Your task to perform on an android device: create a new album in the google photos Image 0: 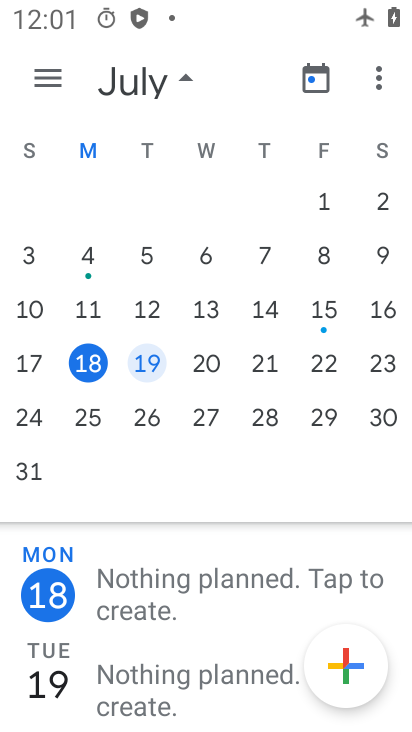
Step 0: press home button
Your task to perform on an android device: create a new album in the google photos Image 1: 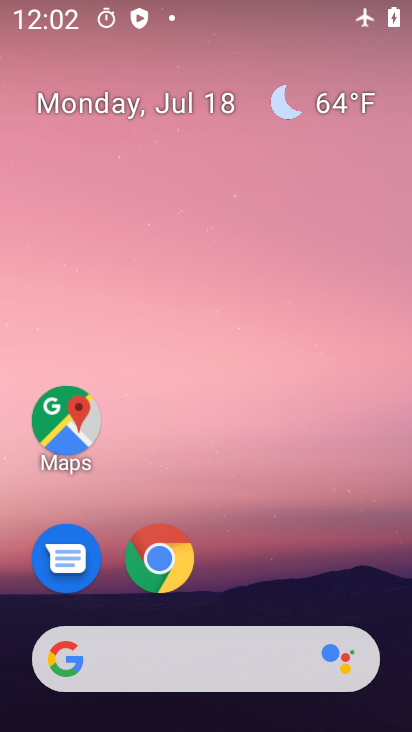
Step 1: drag from (317, 548) to (375, 190)
Your task to perform on an android device: create a new album in the google photos Image 2: 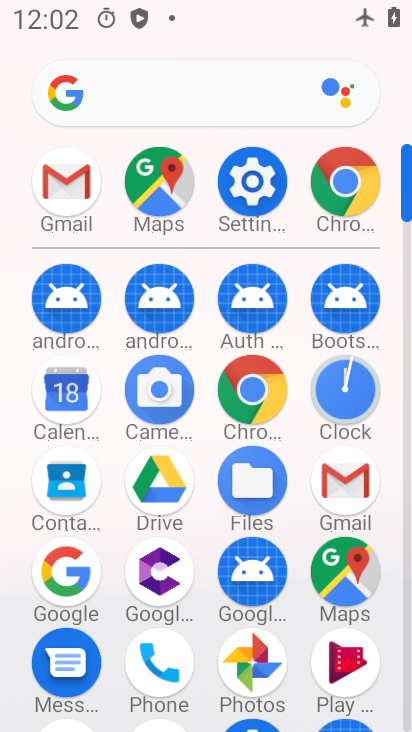
Step 2: drag from (398, 659) to (398, 454)
Your task to perform on an android device: create a new album in the google photos Image 3: 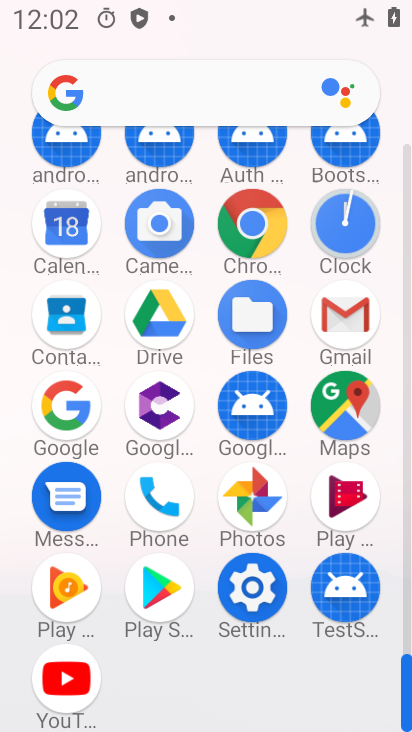
Step 3: click (261, 491)
Your task to perform on an android device: create a new album in the google photos Image 4: 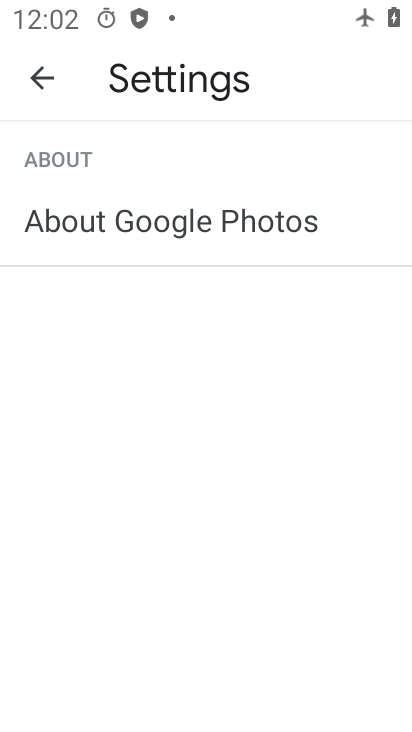
Step 4: press back button
Your task to perform on an android device: create a new album in the google photos Image 5: 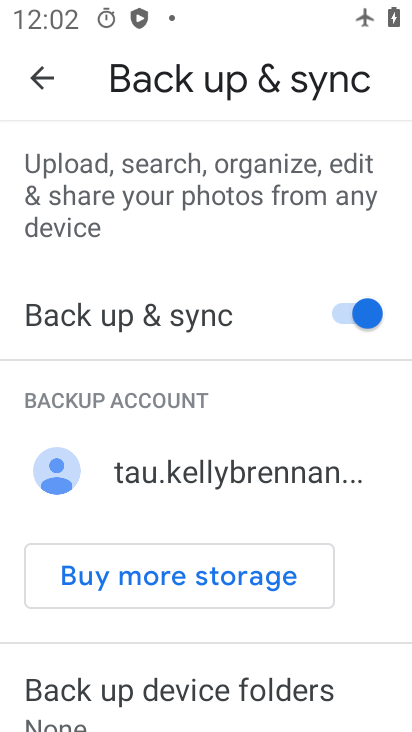
Step 5: press back button
Your task to perform on an android device: create a new album in the google photos Image 6: 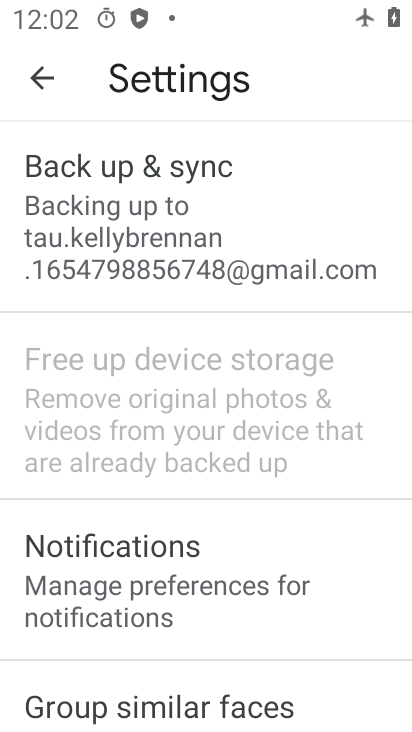
Step 6: press back button
Your task to perform on an android device: create a new album in the google photos Image 7: 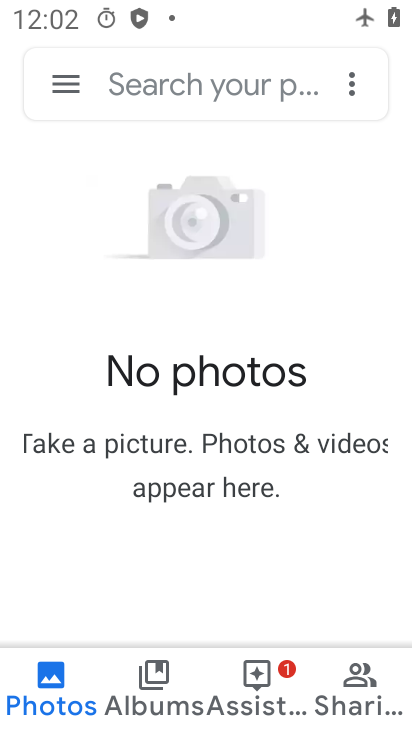
Step 7: click (351, 89)
Your task to perform on an android device: create a new album in the google photos Image 8: 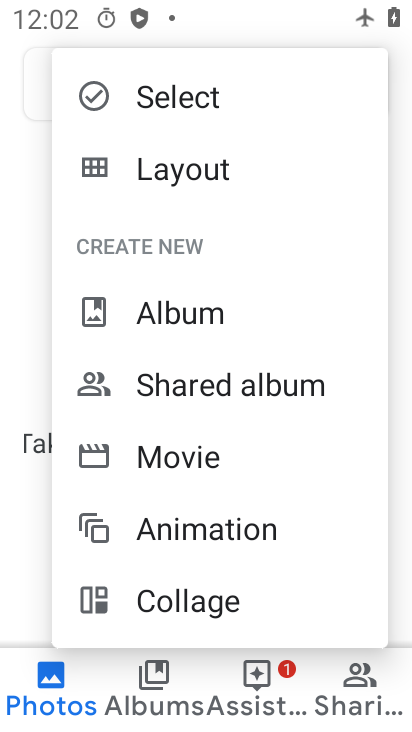
Step 8: click (218, 325)
Your task to perform on an android device: create a new album in the google photos Image 9: 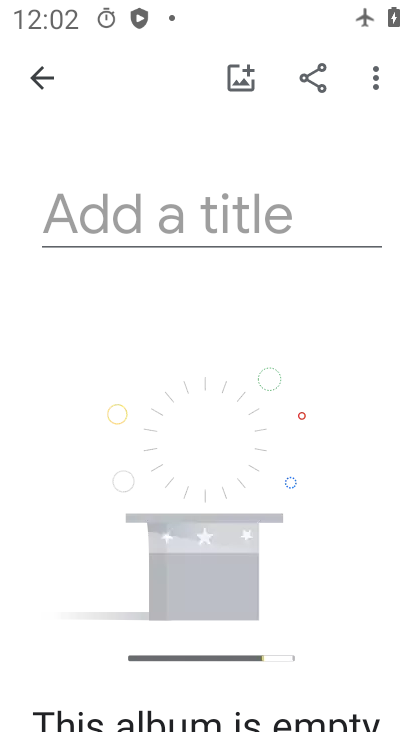
Step 9: click (212, 215)
Your task to perform on an android device: create a new album in the google photos Image 10: 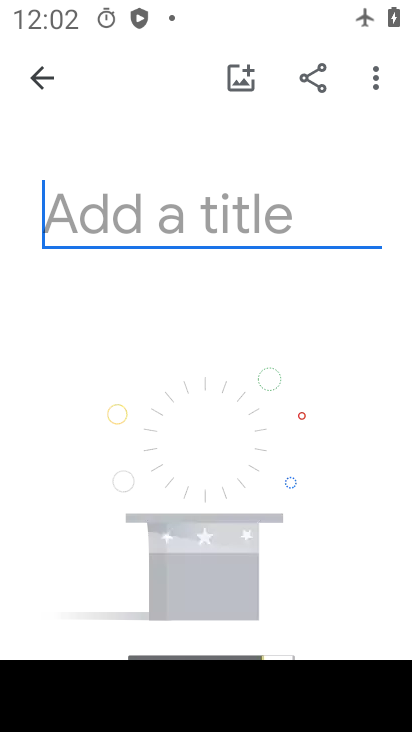
Step 10: type "fav"
Your task to perform on an android device: create a new album in the google photos Image 11: 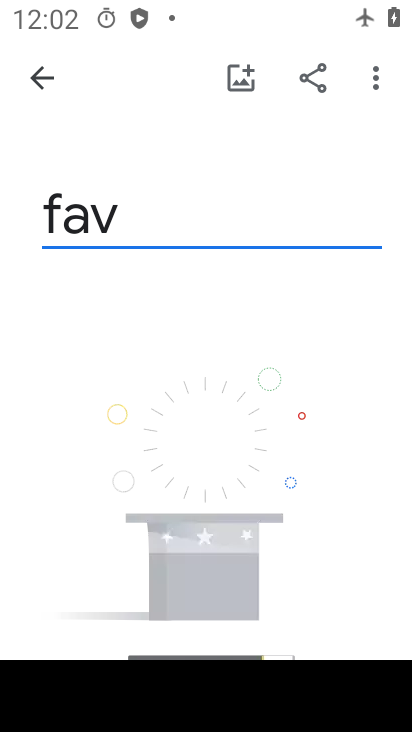
Step 11: drag from (306, 572) to (317, 401)
Your task to perform on an android device: create a new album in the google photos Image 12: 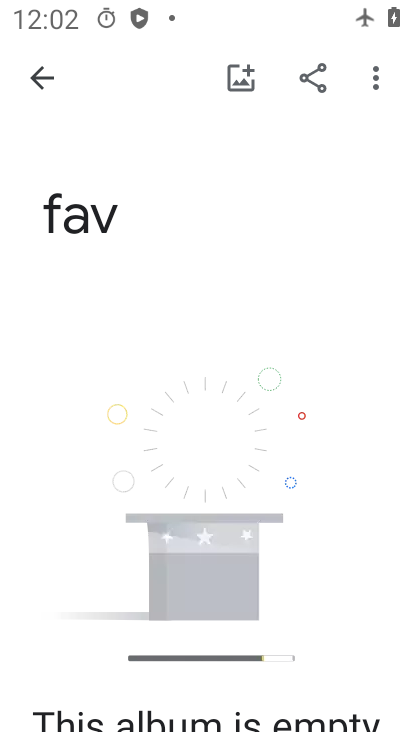
Step 12: drag from (338, 571) to (344, 344)
Your task to perform on an android device: create a new album in the google photos Image 13: 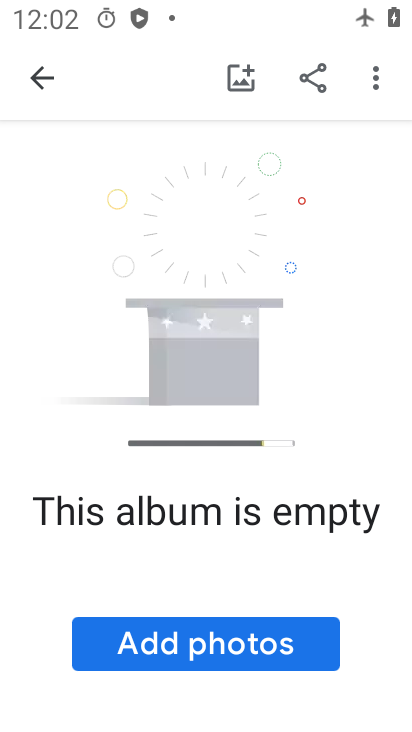
Step 13: drag from (380, 593) to (380, 360)
Your task to perform on an android device: create a new album in the google photos Image 14: 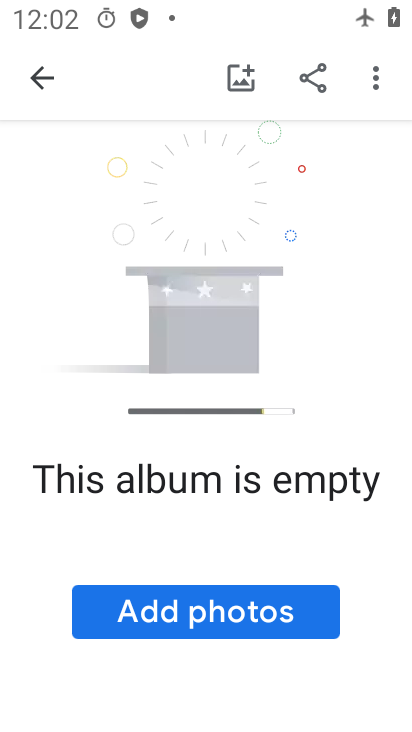
Step 14: click (250, 603)
Your task to perform on an android device: create a new album in the google photos Image 15: 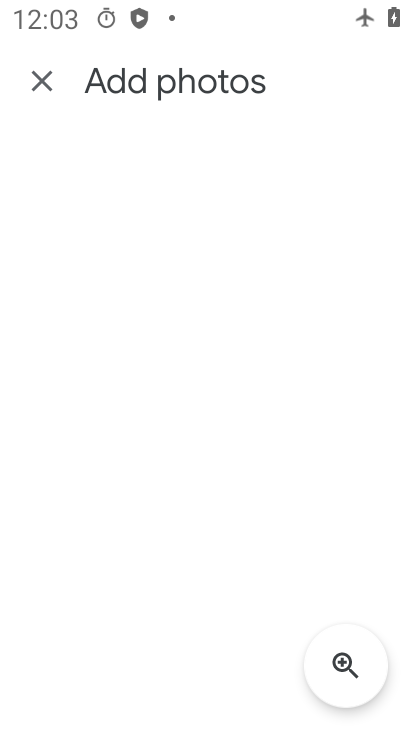
Step 15: task complete